Your task to perform on an android device: What's the weather? Image 0: 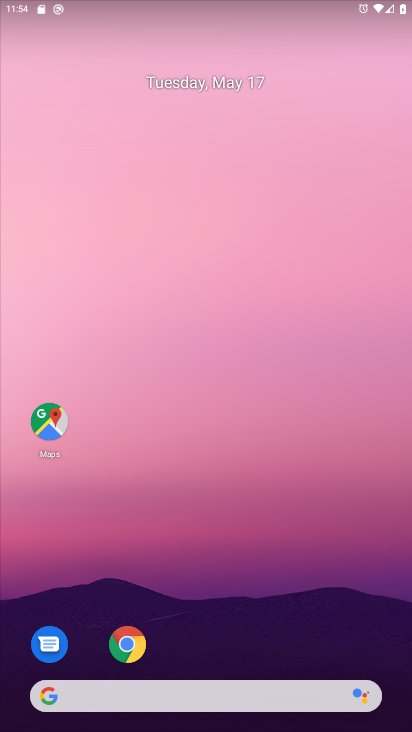
Step 0: drag from (211, 649) to (212, 80)
Your task to perform on an android device: What's the weather? Image 1: 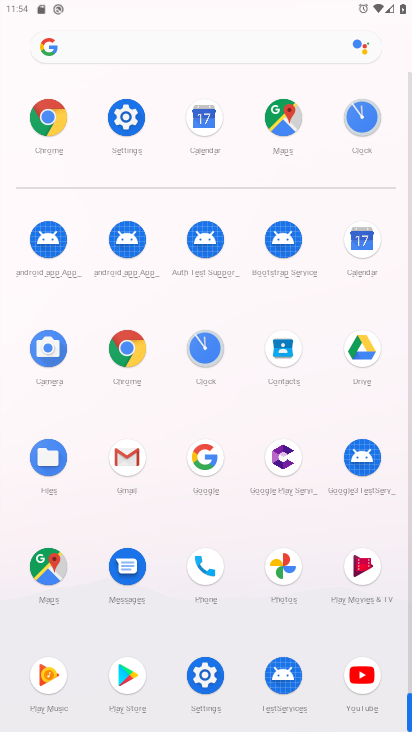
Step 1: press back button
Your task to perform on an android device: What's the weather? Image 2: 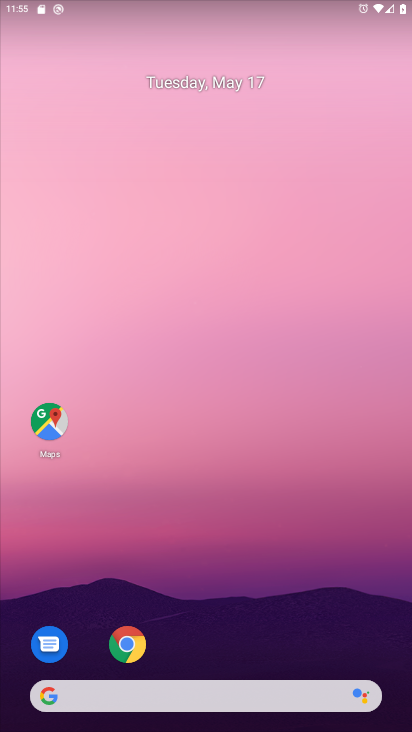
Step 2: drag from (7, 291) to (394, 320)
Your task to perform on an android device: What's the weather? Image 3: 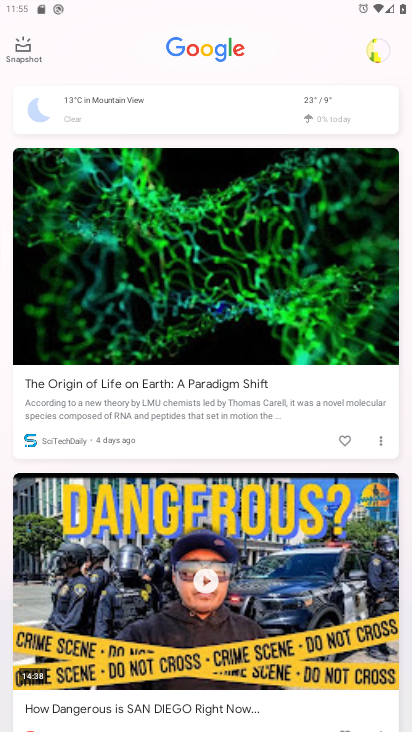
Step 3: click (257, 108)
Your task to perform on an android device: What's the weather? Image 4: 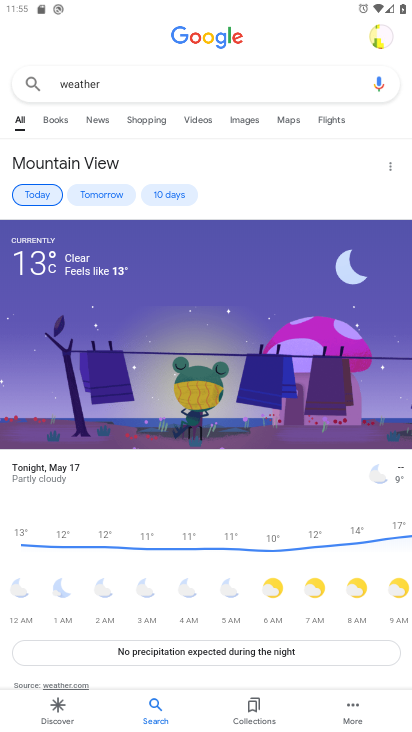
Step 4: task complete